Your task to perform on an android device: change notification settings in the gmail app Image 0: 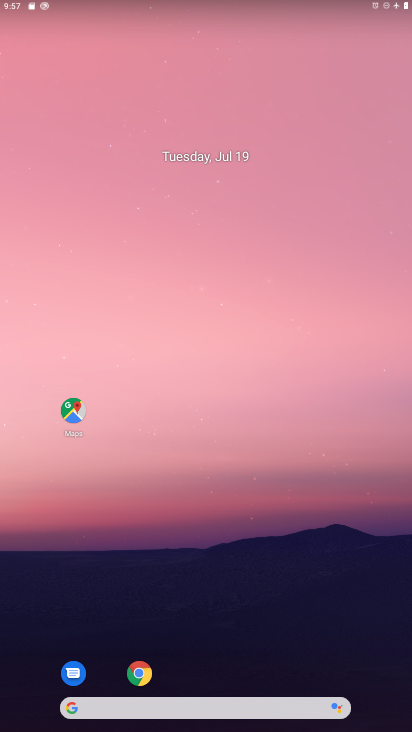
Step 0: drag from (385, 688) to (325, 127)
Your task to perform on an android device: change notification settings in the gmail app Image 1: 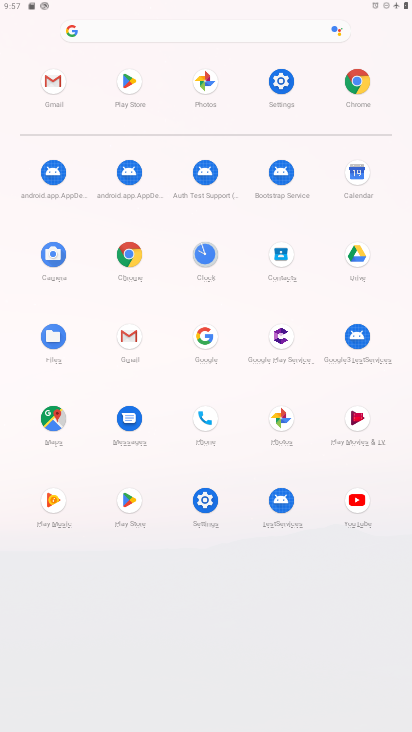
Step 1: click (126, 337)
Your task to perform on an android device: change notification settings in the gmail app Image 2: 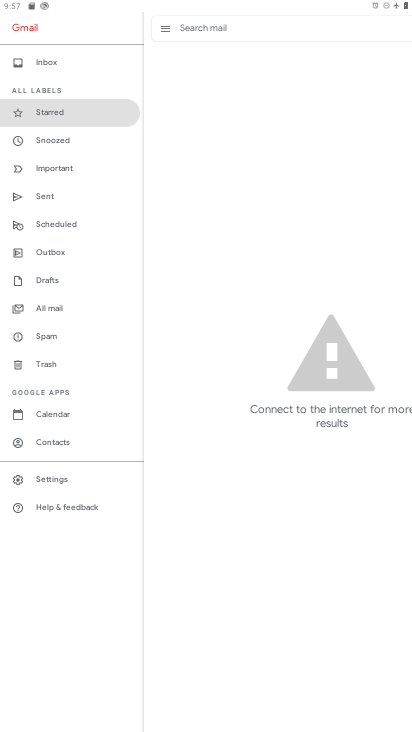
Step 2: click (63, 470)
Your task to perform on an android device: change notification settings in the gmail app Image 3: 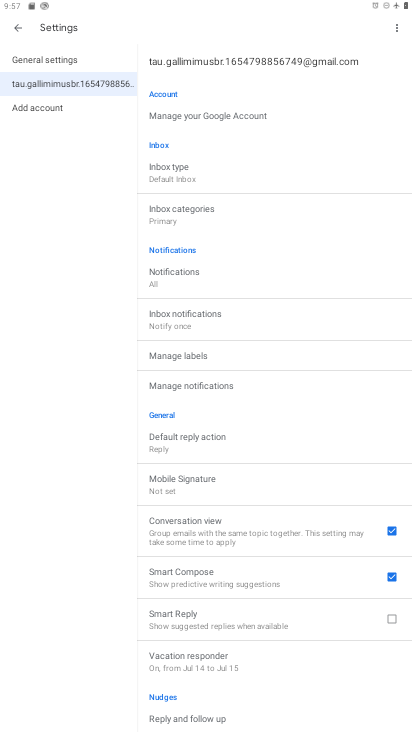
Step 3: click (176, 381)
Your task to perform on an android device: change notification settings in the gmail app Image 4: 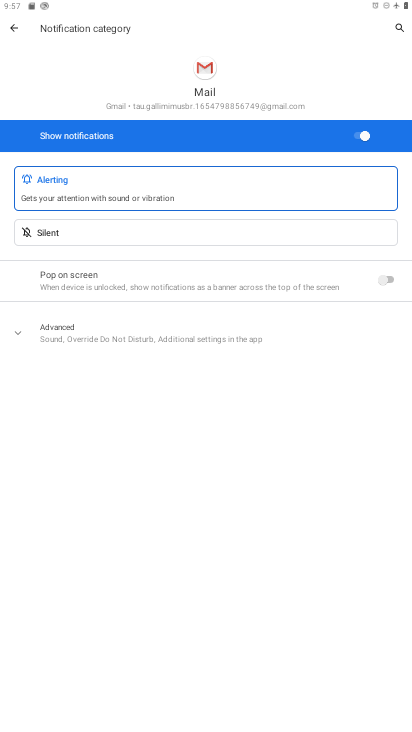
Step 4: click (354, 133)
Your task to perform on an android device: change notification settings in the gmail app Image 5: 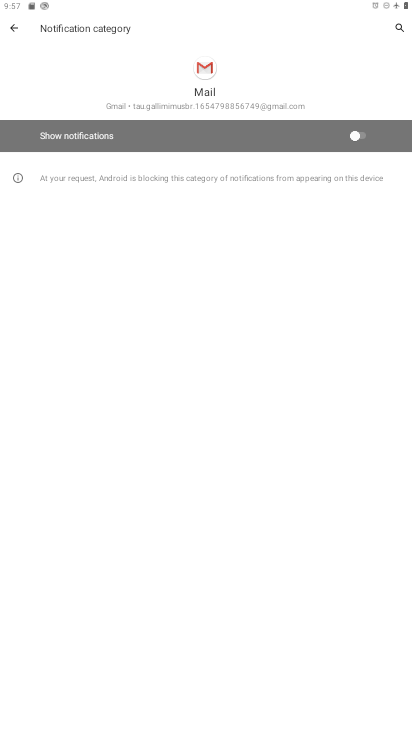
Step 5: task complete